Your task to perform on an android device: Do I have any events today? Image 0: 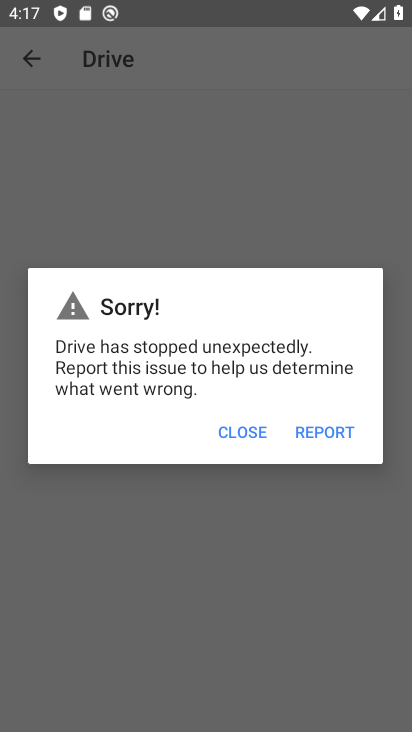
Step 0: press home button
Your task to perform on an android device: Do I have any events today? Image 1: 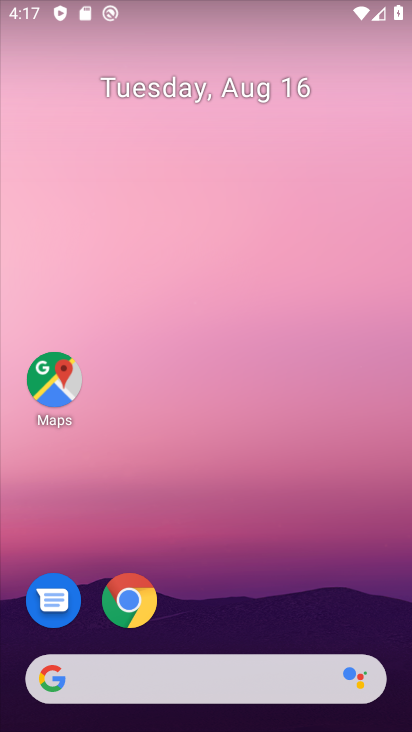
Step 1: drag from (227, 632) to (296, 0)
Your task to perform on an android device: Do I have any events today? Image 2: 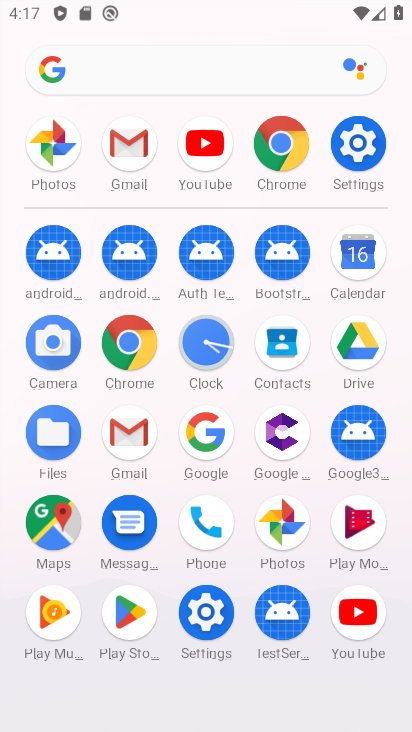
Step 2: click (374, 267)
Your task to perform on an android device: Do I have any events today? Image 3: 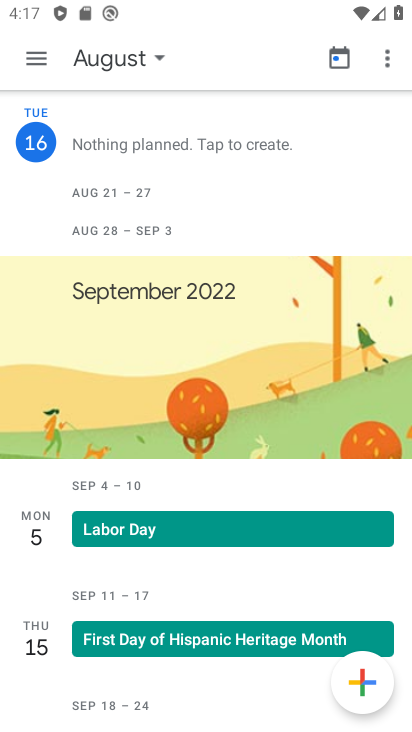
Step 3: click (33, 54)
Your task to perform on an android device: Do I have any events today? Image 4: 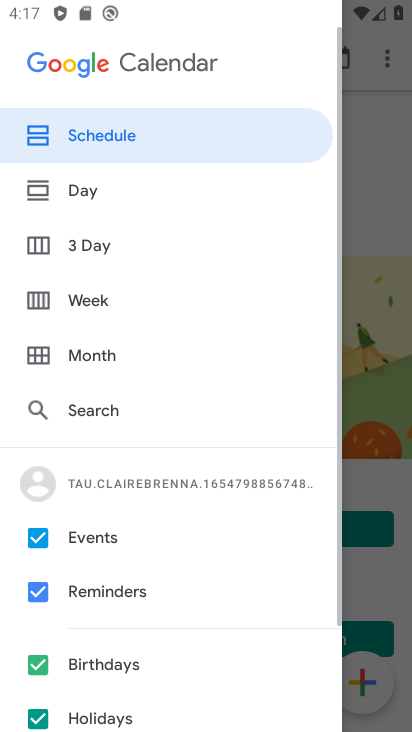
Step 4: click (96, 595)
Your task to perform on an android device: Do I have any events today? Image 5: 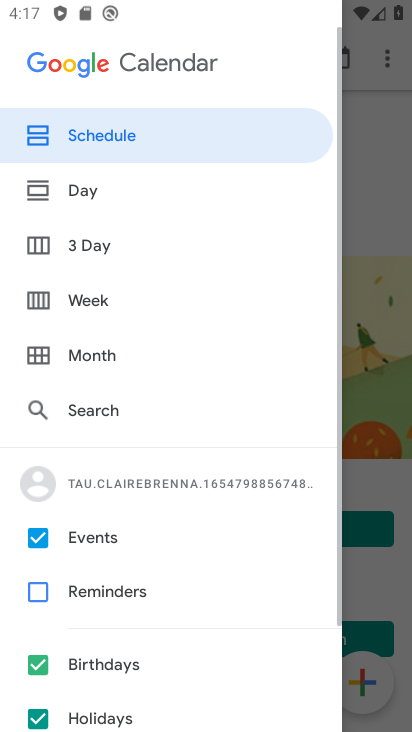
Step 5: click (102, 670)
Your task to perform on an android device: Do I have any events today? Image 6: 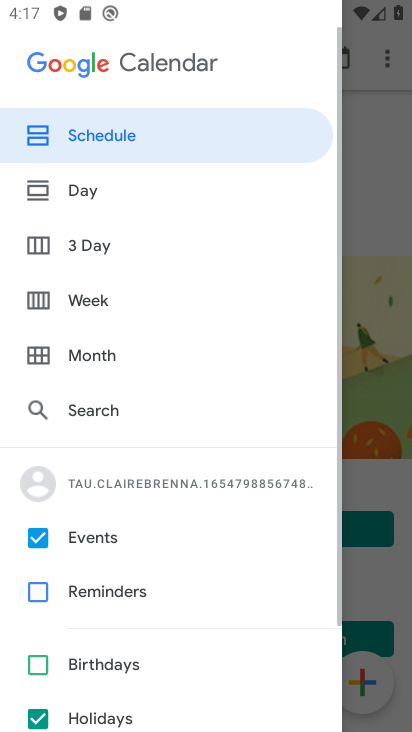
Step 6: drag from (194, 624) to (204, 416)
Your task to perform on an android device: Do I have any events today? Image 7: 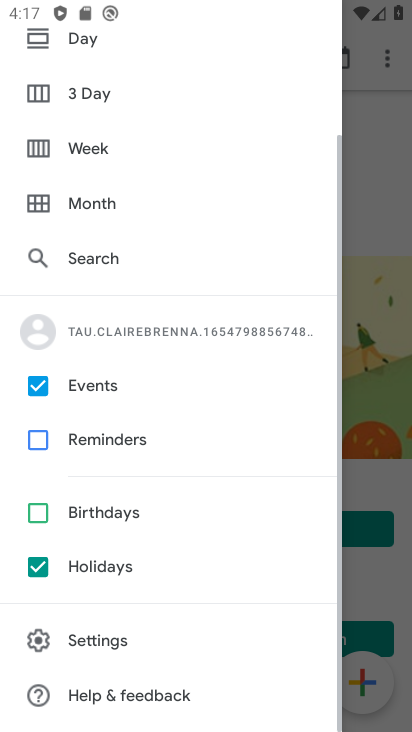
Step 7: click (96, 565)
Your task to perform on an android device: Do I have any events today? Image 8: 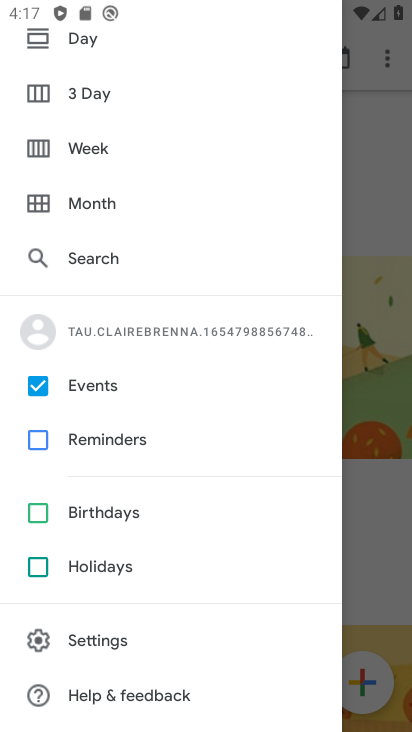
Step 8: click (90, 47)
Your task to perform on an android device: Do I have any events today? Image 9: 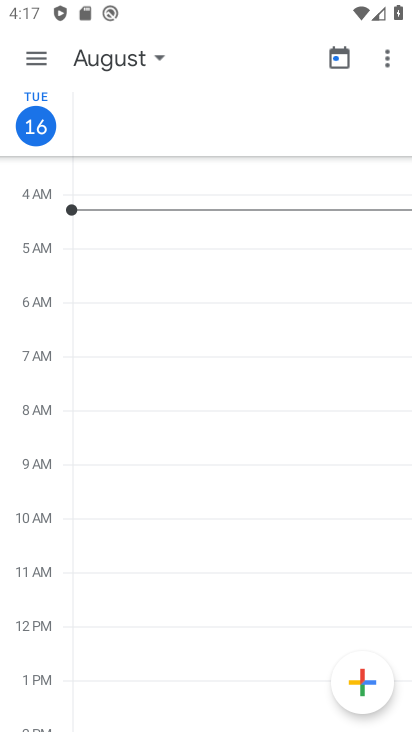
Step 9: task complete